Your task to perform on an android device: What is the news today? Image 0: 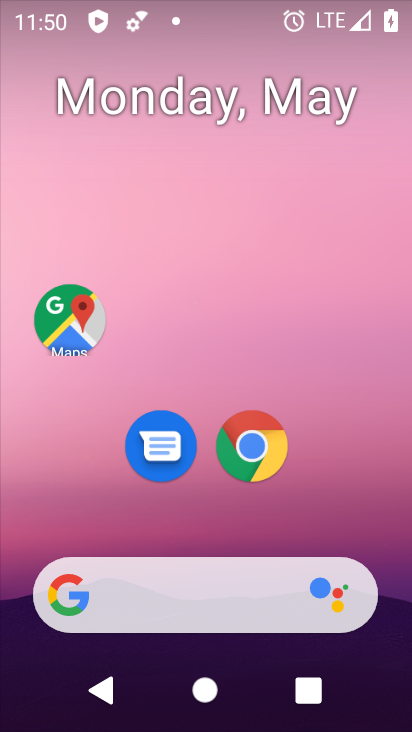
Step 0: drag from (4, 214) to (270, 256)
Your task to perform on an android device: What is the news today? Image 1: 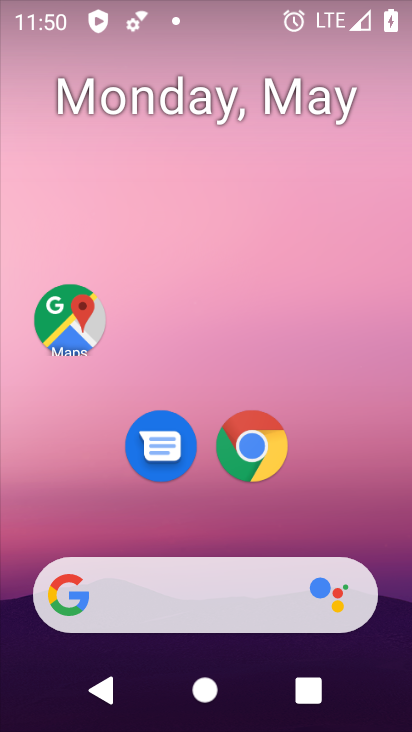
Step 1: drag from (3, 212) to (390, 203)
Your task to perform on an android device: What is the news today? Image 2: 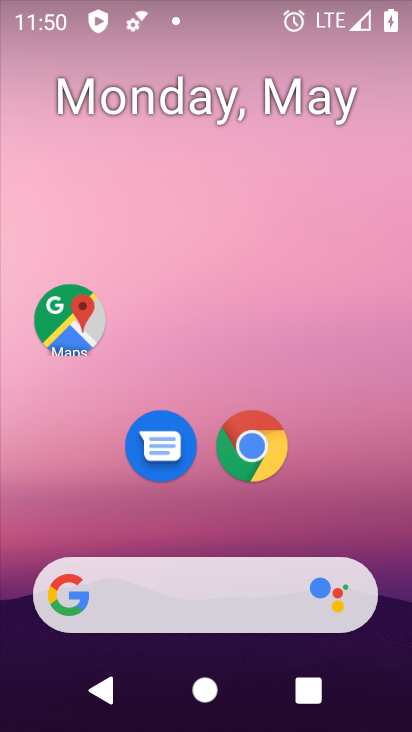
Step 2: click (410, 233)
Your task to perform on an android device: What is the news today? Image 3: 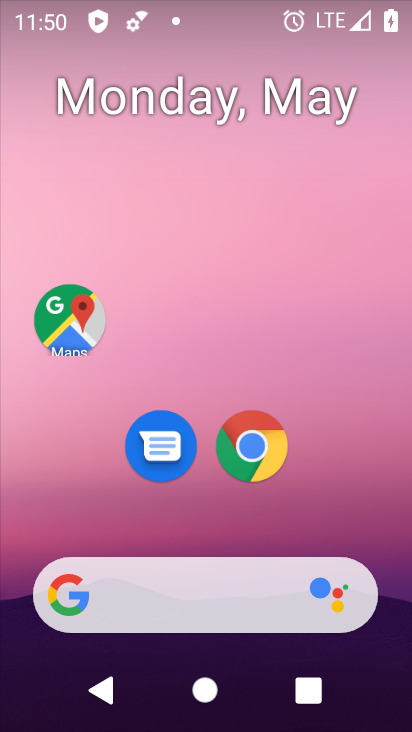
Step 3: drag from (4, 220) to (308, 367)
Your task to perform on an android device: What is the news today? Image 4: 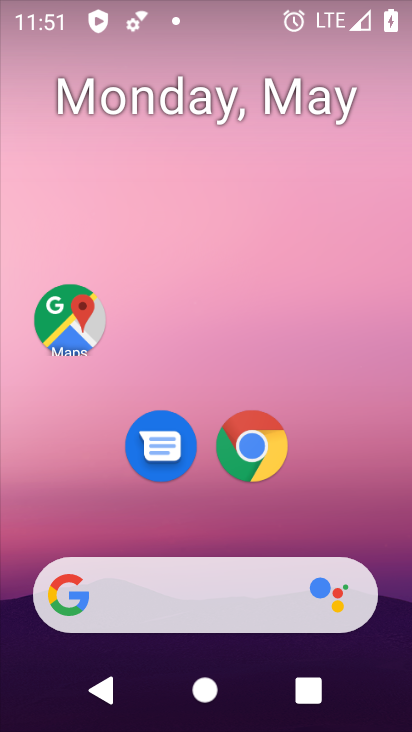
Step 4: click (165, 586)
Your task to perform on an android device: What is the news today? Image 5: 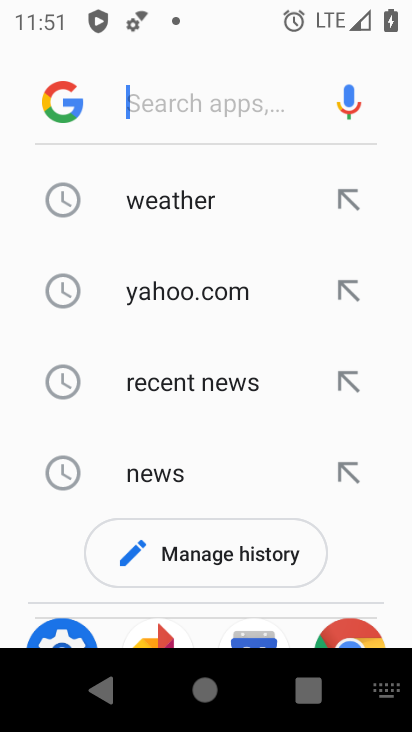
Step 5: click (163, 479)
Your task to perform on an android device: What is the news today? Image 6: 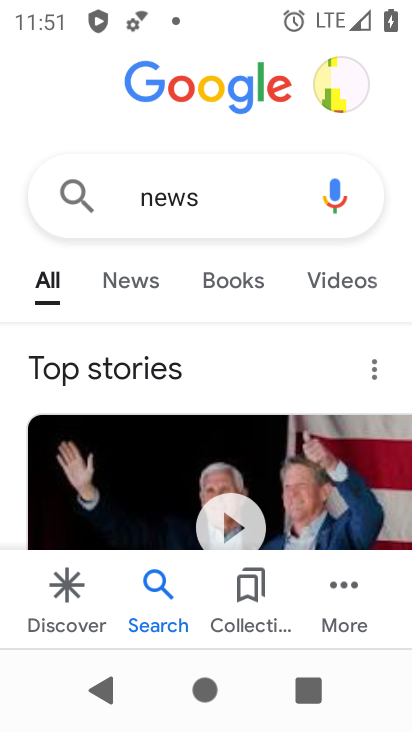
Step 6: task complete